Your task to perform on an android device: empty trash in google photos Image 0: 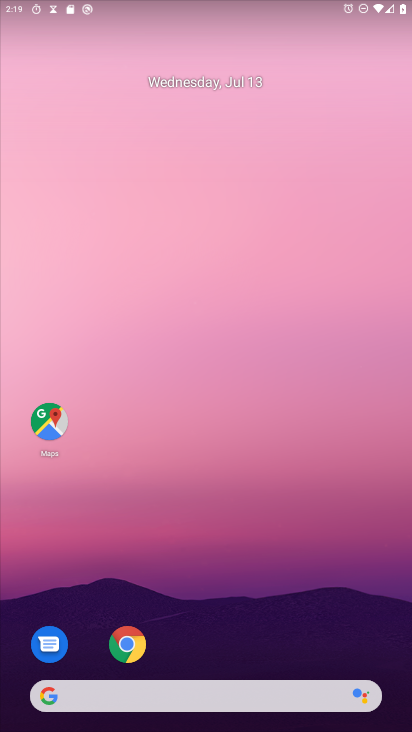
Step 0: press home button
Your task to perform on an android device: empty trash in google photos Image 1: 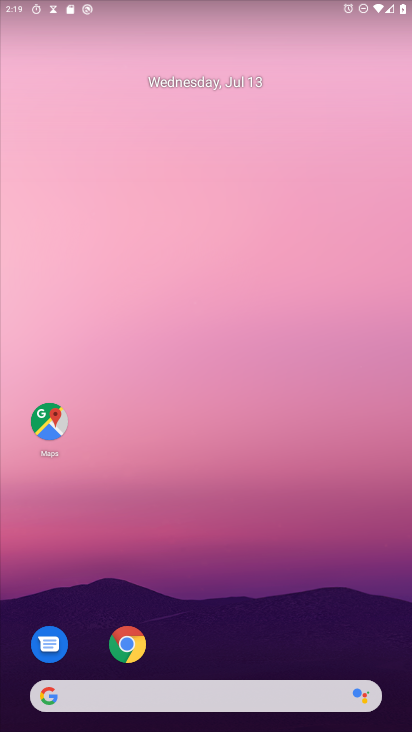
Step 1: drag from (279, 592) to (282, 18)
Your task to perform on an android device: empty trash in google photos Image 2: 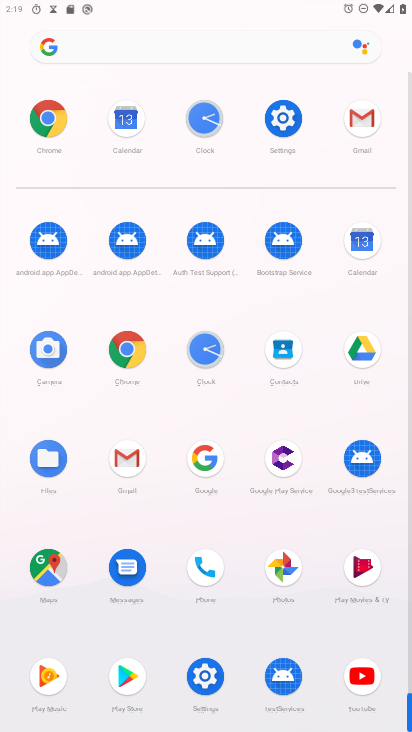
Step 2: click (287, 569)
Your task to perform on an android device: empty trash in google photos Image 3: 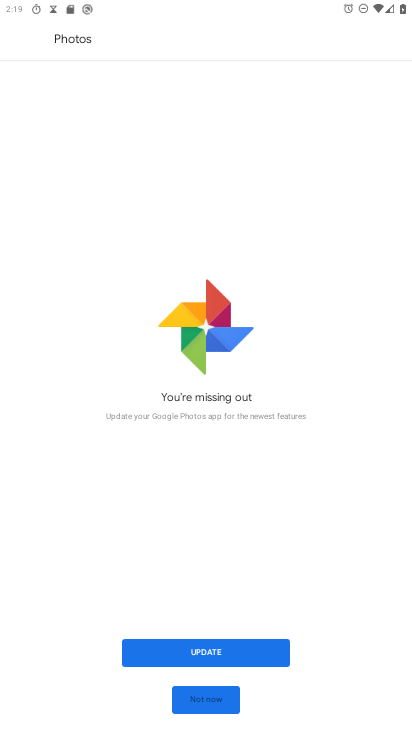
Step 3: click (218, 655)
Your task to perform on an android device: empty trash in google photos Image 4: 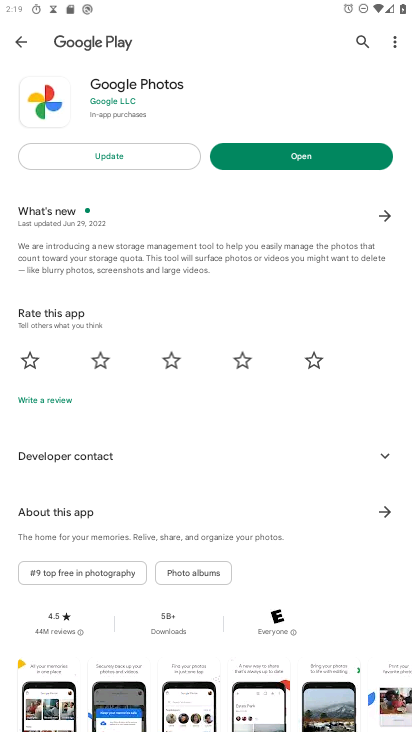
Step 4: click (125, 157)
Your task to perform on an android device: empty trash in google photos Image 5: 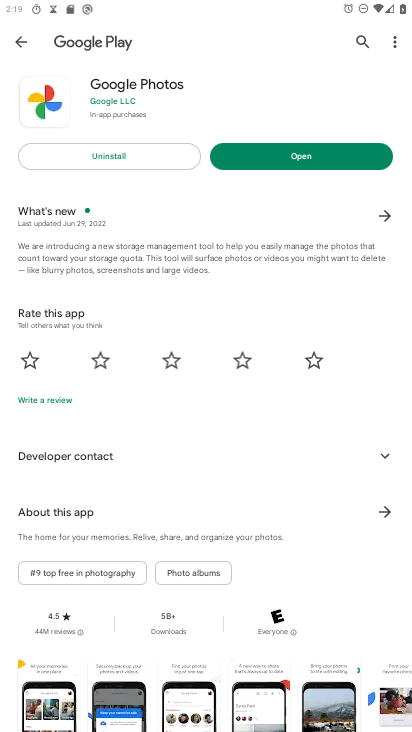
Step 5: click (343, 157)
Your task to perform on an android device: empty trash in google photos Image 6: 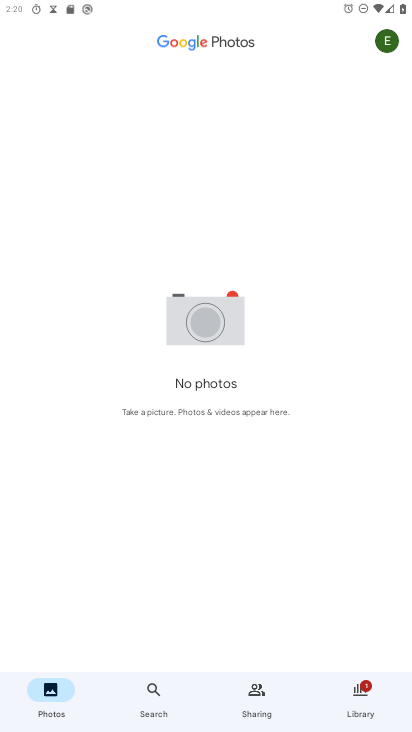
Step 6: click (387, 42)
Your task to perform on an android device: empty trash in google photos Image 7: 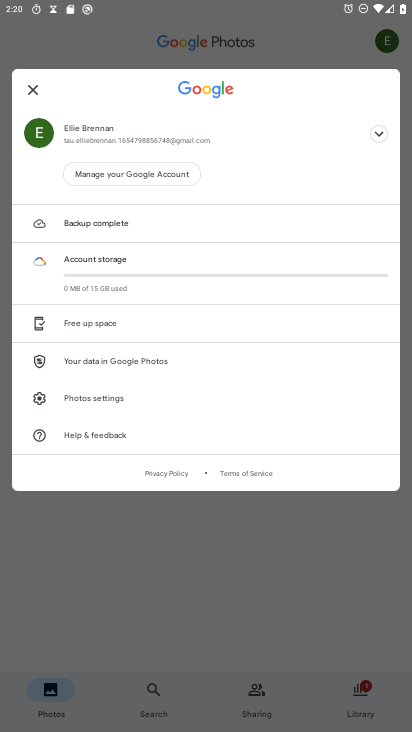
Step 7: click (169, 30)
Your task to perform on an android device: empty trash in google photos Image 8: 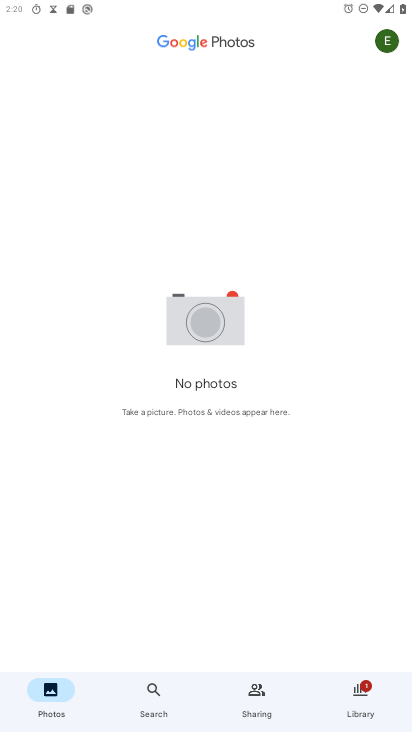
Step 8: task complete